Your task to perform on an android device: turn on airplane mode Image 0: 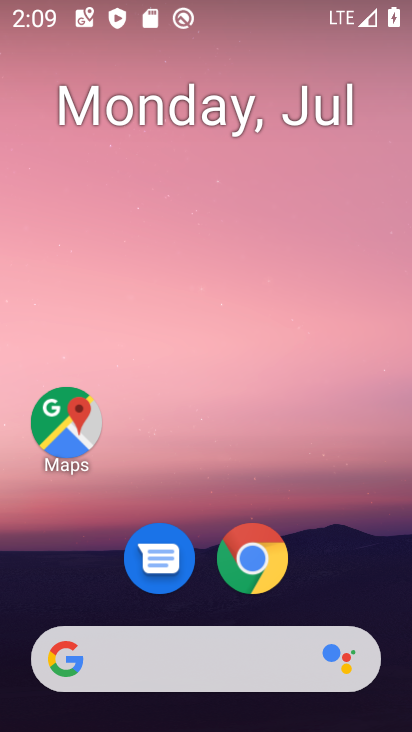
Step 0: drag from (367, 558) to (363, 157)
Your task to perform on an android device: turn on airplane mode Image 1: 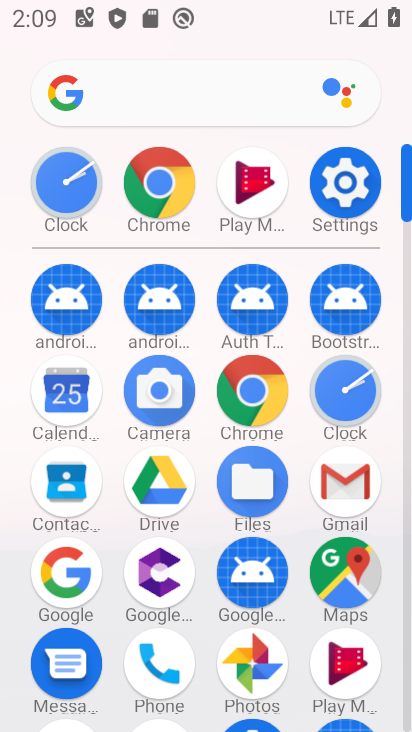
Step 1: click (347, 189)
Your task to perform on an android device: turn on airplane mode Image 2: 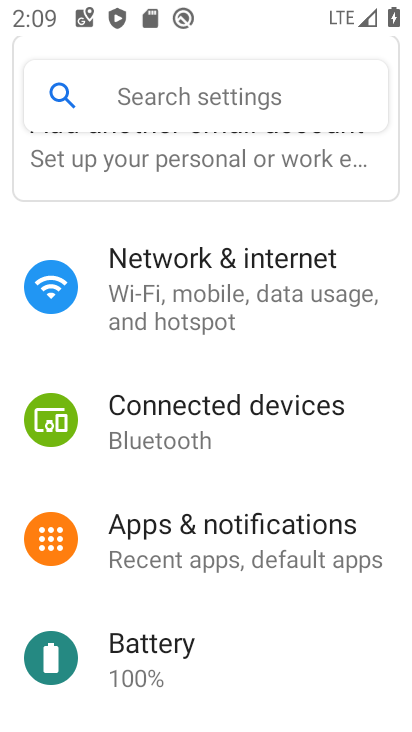
Step 2: drag from (363, 486) to (368, 389)
Your task to perform on an android device: turn on airplane mode Image 3: 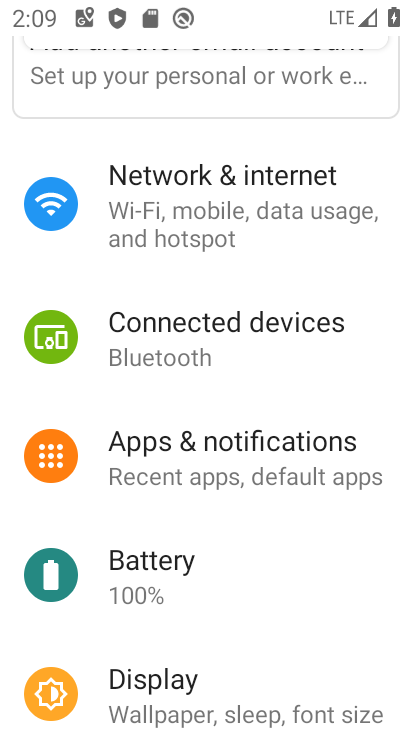
Step 3: drag from (355, 556) to (354, 427)
Your task to perform on an android device: turn on airplane mode Image 4: 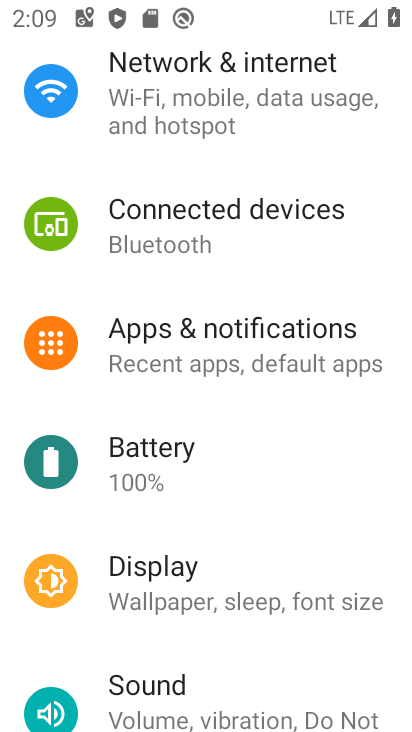
Step 4: drag from (344, 605) to (342, 481)
Your task to perform on an android device: turn on airplane mode Image 5: 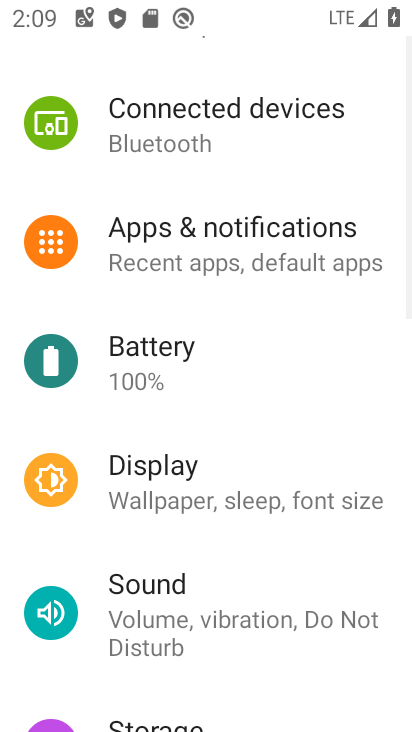
Step 5: drag from (328, 578) to (314, 483)
Your task to perform on an android device: turn on airplane mode Image 6: 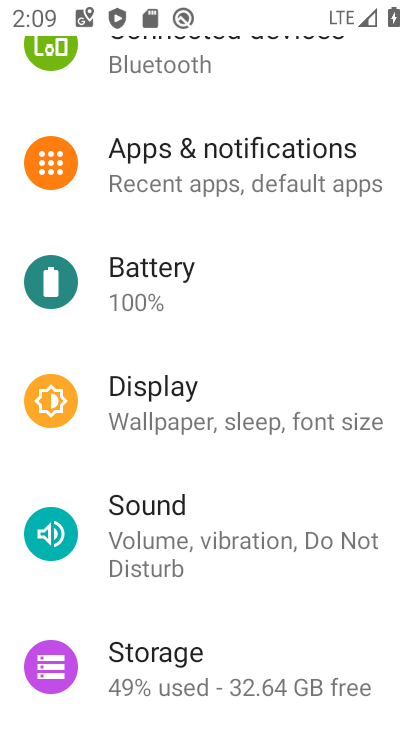
Step 6: drag from (307, 592) to (307, 491)
Your task to perform on an android device: turn on airplane mode Image 7: 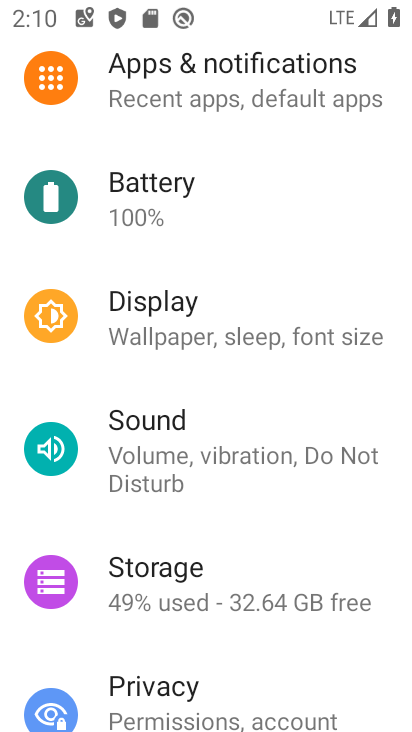
Step 7: drag from (307, 608) to (301, 470)
Your task to perform on an android device: turn on airplane mode Image 8: 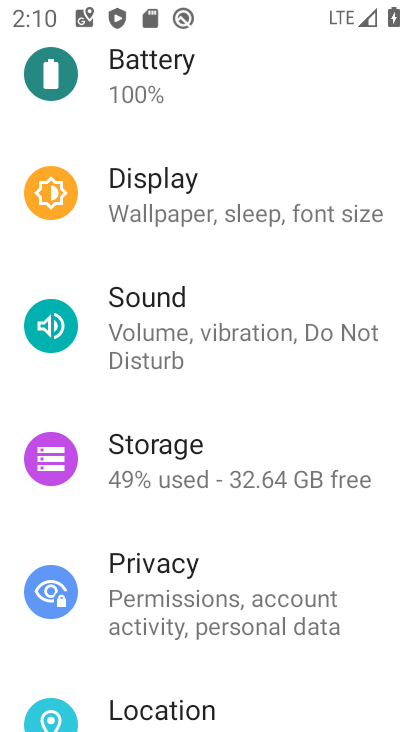
Step 8: drag from (298, 554) to (300, 394)
Your task to perform on an android device: turn on airplane mode Image 9: 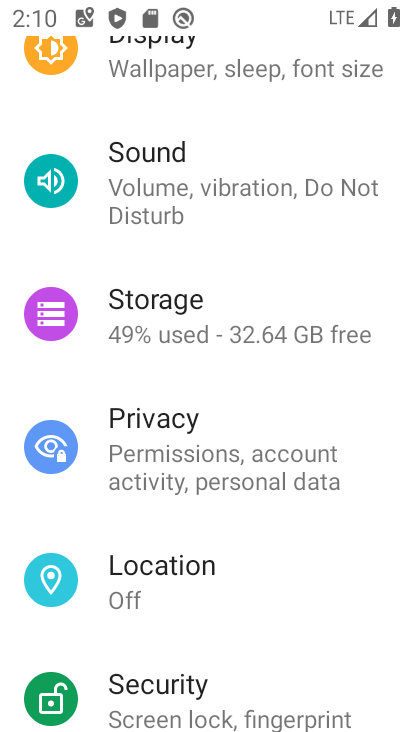
Step 9: drag from (279, 553) to (280, 438)
Your task to perform on an android device: turn on airplane mode Image 10: 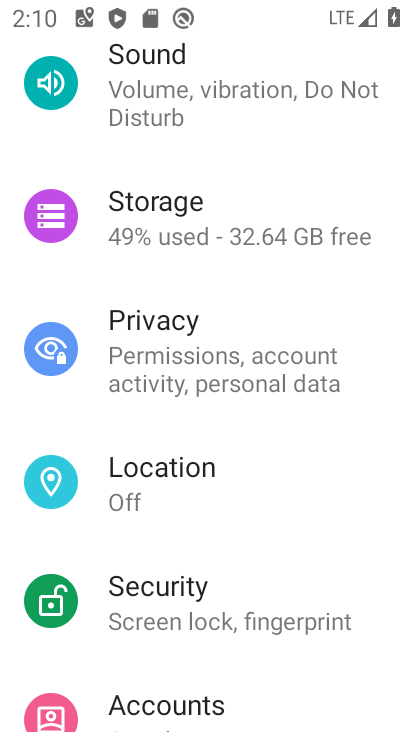
Step 10: drag from (312, 565) to (299, 396)
Your task to perform on an android device: turn on airplane mode Image 11: 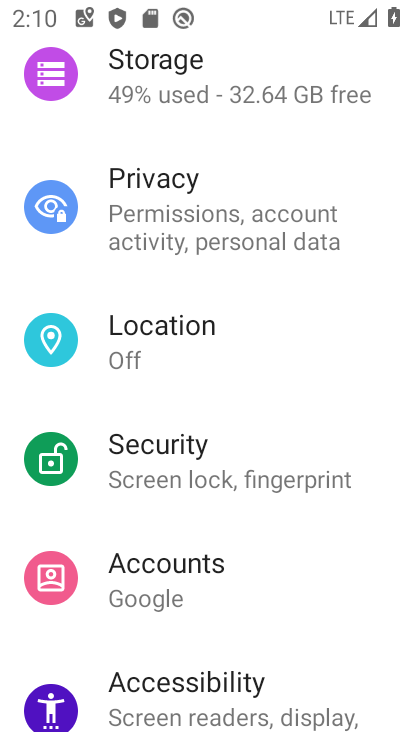
Step 11: drag from (307, 572) to (308, 383)
Your task to perform on an android device: turn on airplane mode Image 12: 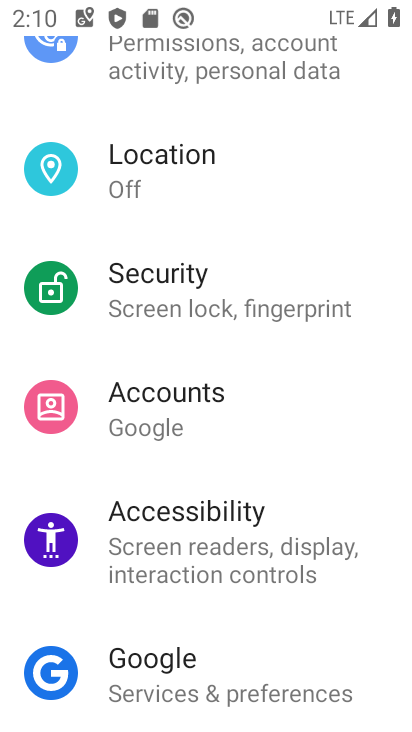
Step 12: drag from (319, 543) to (319, 290)
Your task to perform on an android device: turn on airplane mode Image 13: 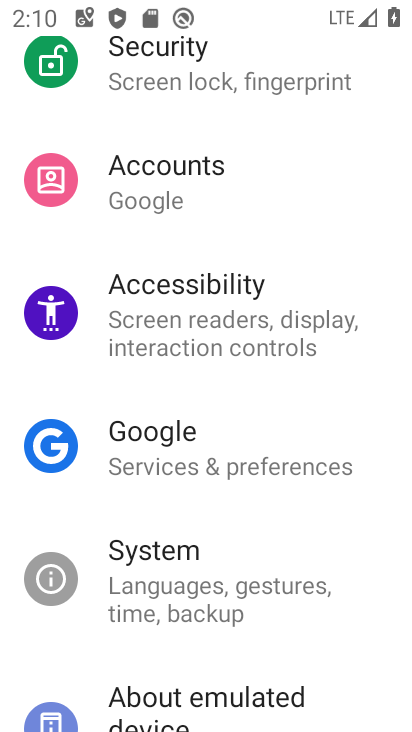
Step 13: drag from (336, 611) to (309, 317)
Your task to perform on an android device: turn on airplane mode Image 14: 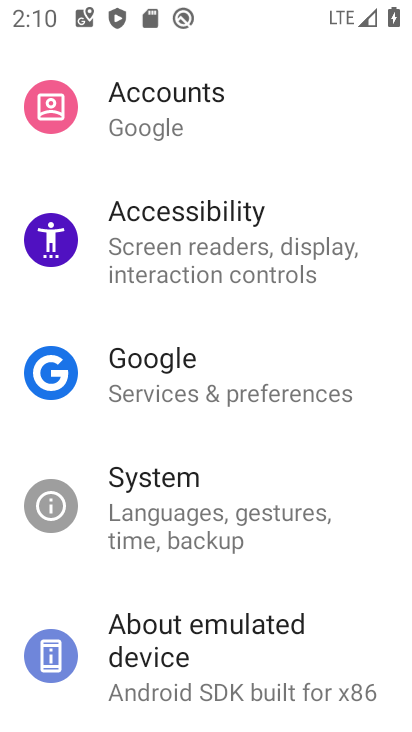
Step 14: drag from (310, 591) to (309, 410)
Your task to perform on an android device: turn on airplane mode Image 15: 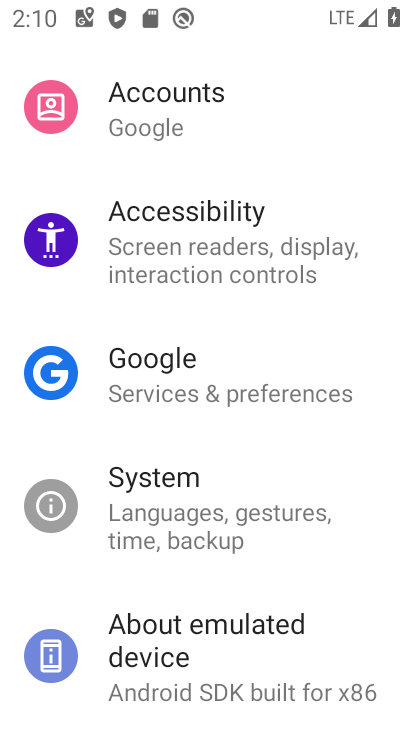
Step 15: drag from (352, 224) to (342, 368)
Your task to perform on an android device: turn on airplane mode Image 16: 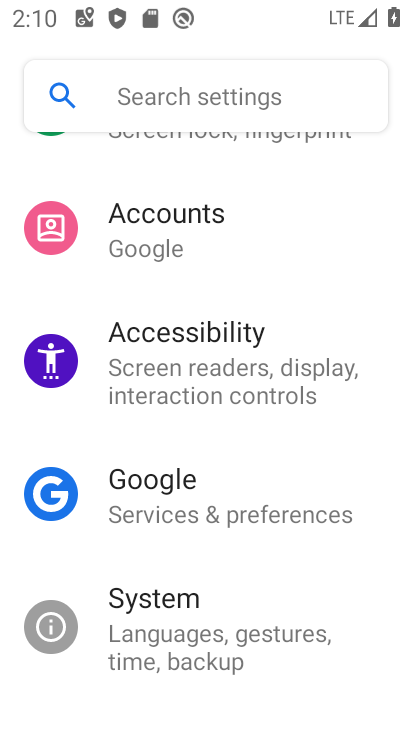
Step 16: drag from (341, 234) to (302, 390)
Your task to perform on an android device: turn on airplane mode Image 17: 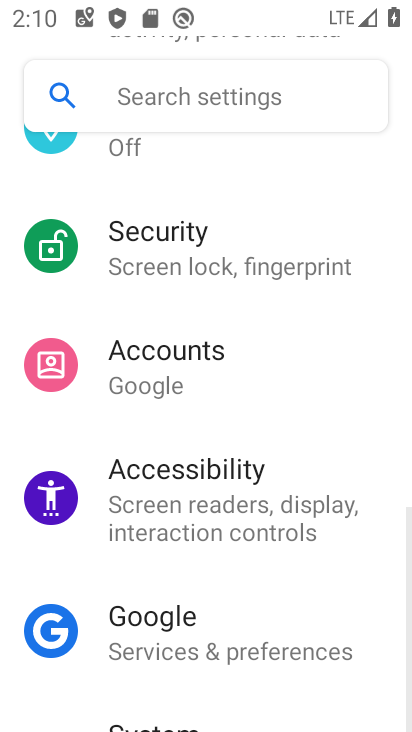
Step 17: drag from (319, 265) to (305, 407)
Your task to perform on an android device: turn on airplane mode Image 18: 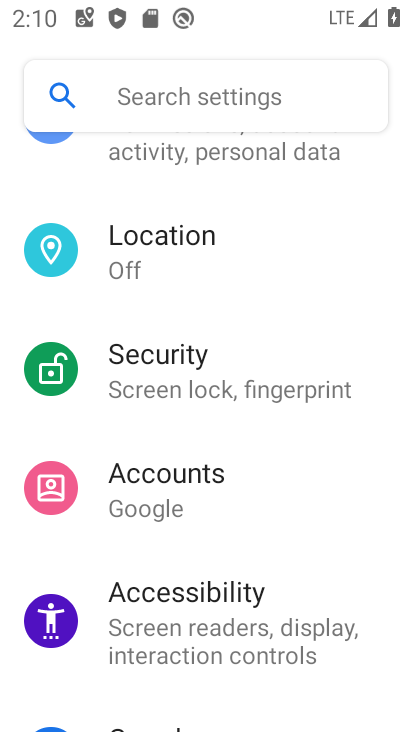
Step 18: drag from (315, 206) to (315, 385)
Your task to perform on an android device: turn on airplane mode Image 19: 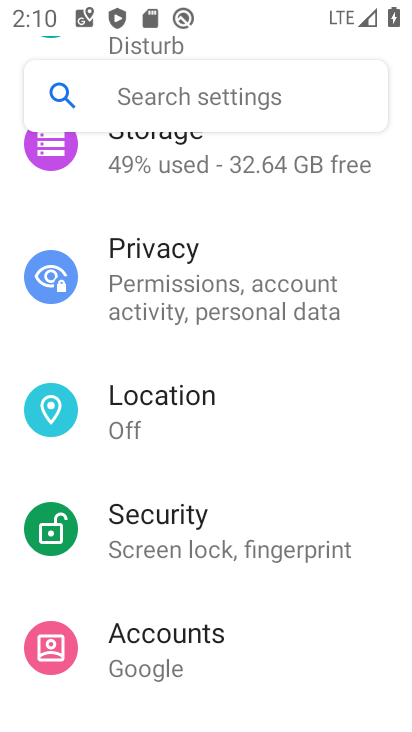
Step 19: drag from (326, 191) to (304, 412)
Your task to perform on an android device: turn on airplane mode Image 20: 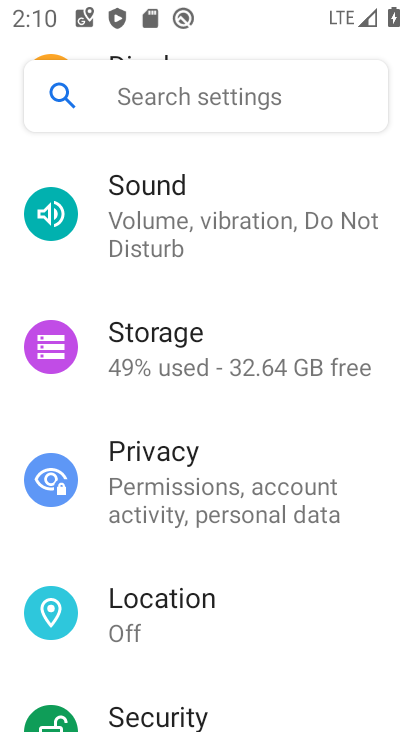
Step 20: drag from (331, 173) to (294, 506)
Your task to perform on an android device: turn on airplane mode Image 21: 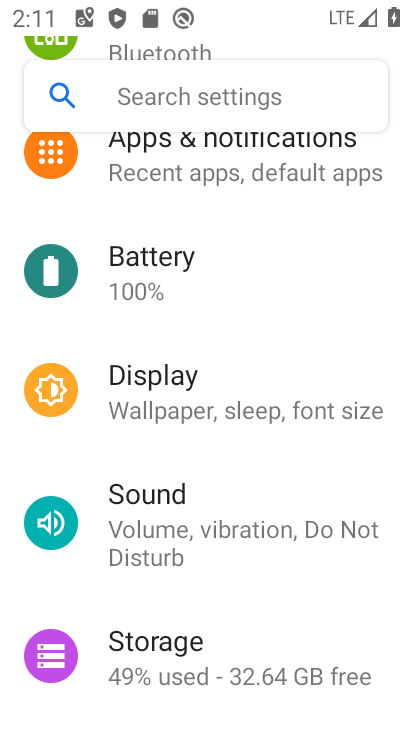
Step 21: drag from (331, 227) to (328, 429)
Your task to perform on an android device: turn on airplane mode Image 22: 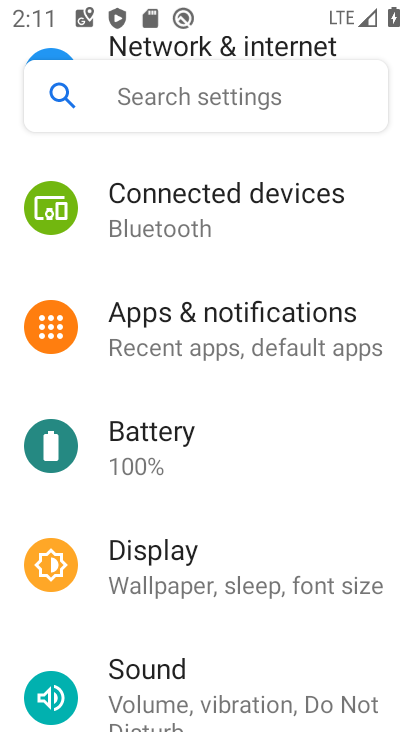
Step 22: drag from (359, 166) to (356, 488)
Your task to perform on an android device: turn on airplane mode Image 23: 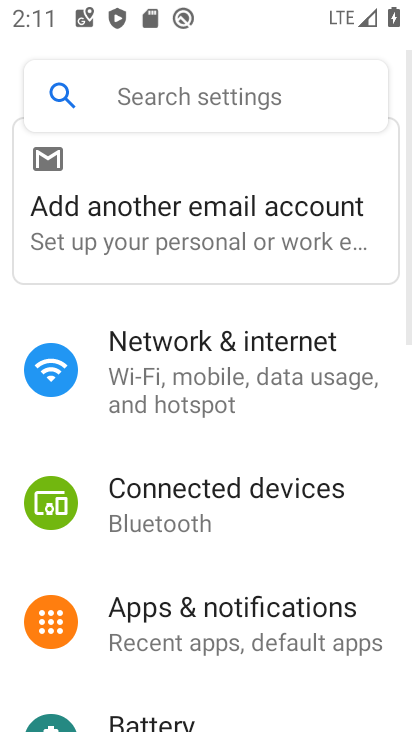
Step 23: click (293, 342)
Your task to perform on an android device: turn on airplane mode Image 24: 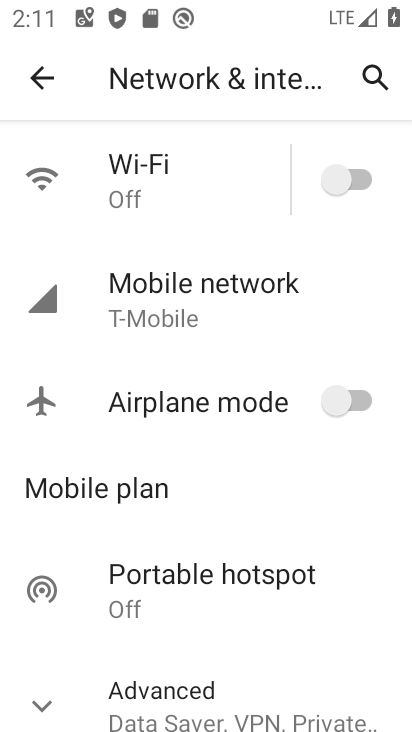
Step 24: click (334, 398)
Your task to perform on an android device: turn on airplane mode Image 25: 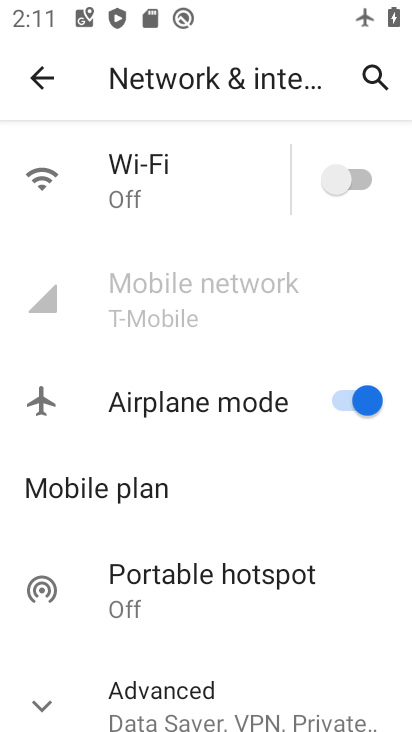
Step 25: task complete